Your task to perform on an android device: open app "Life360: Find Family & Friends" (install if not already installed) Image 0: 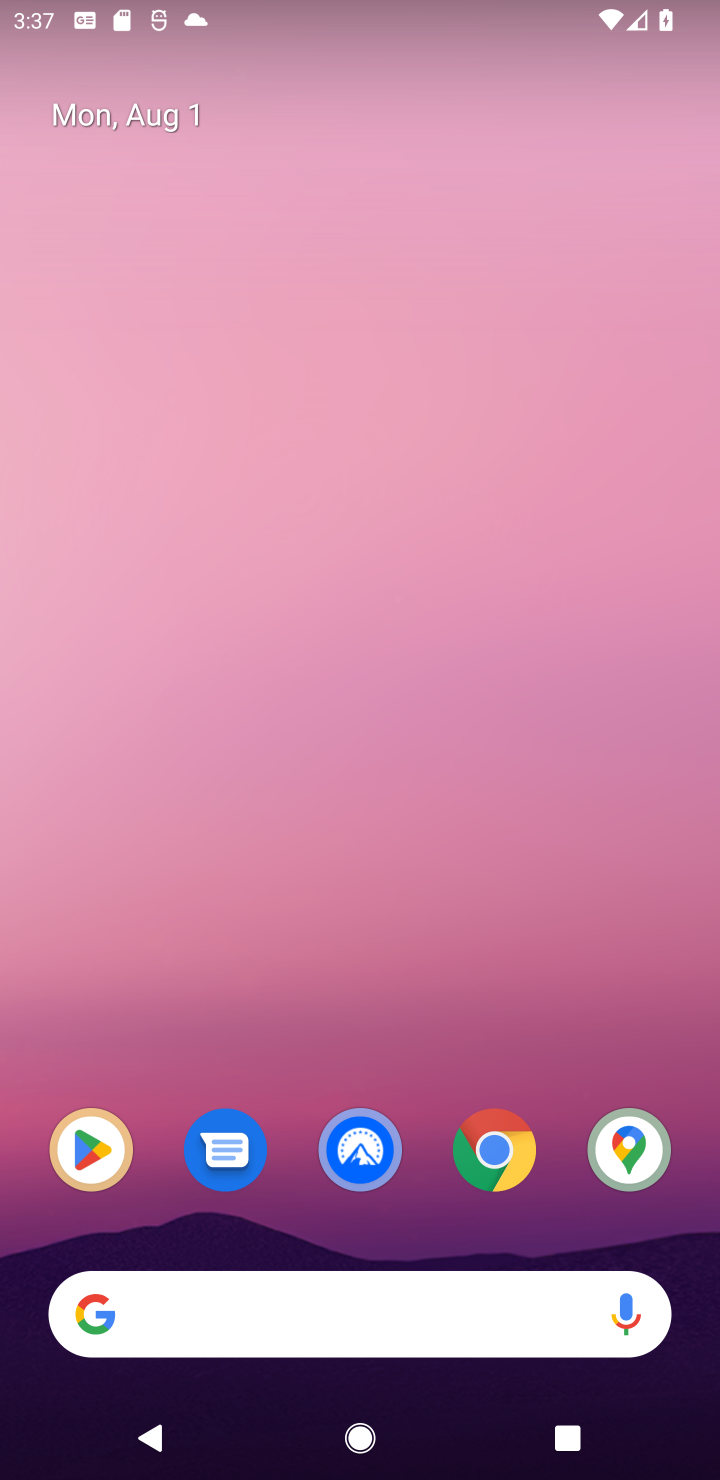
Step 0: click (97, 1130)
Your task to perform on an android device: open app "Life360: Find Family & Friends" (install if not already installed) Image 1: 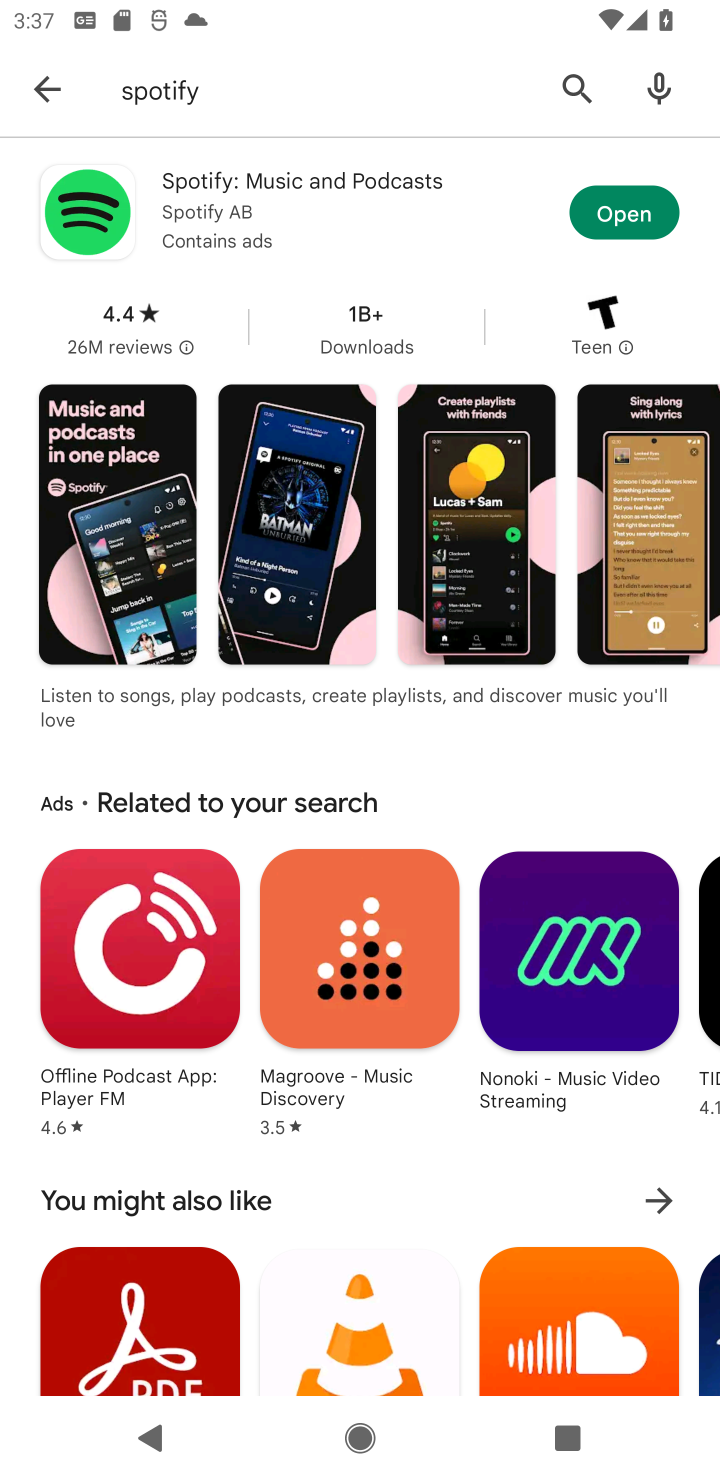
Step 1: click (565, 100)
Your task to perform on an android device: open app "Life360: Find Family & Friends" (install if not already installed) Image 2: 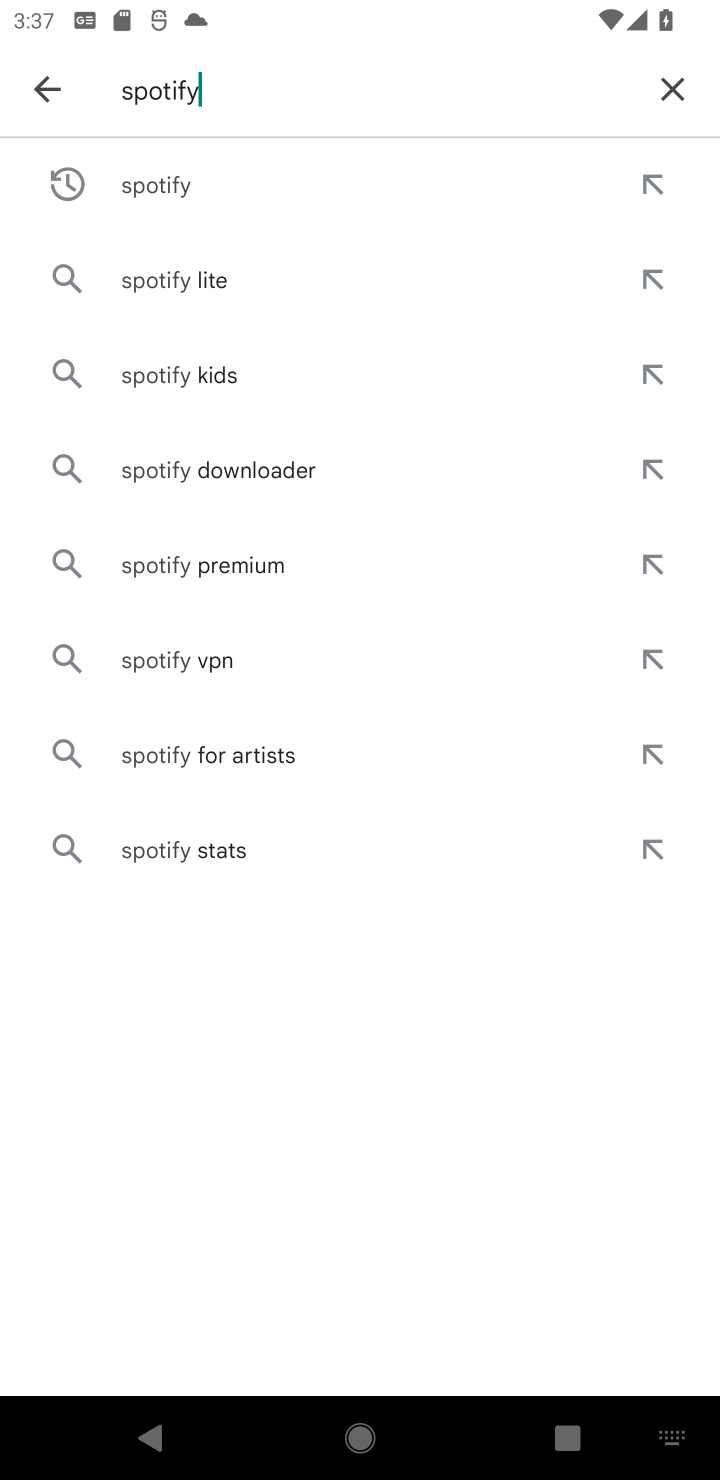
Step 2: click (671, 90)
Your task to perform on an android device: open app "Life360: Find Family & Friends" (install if not already installed) Image 3: 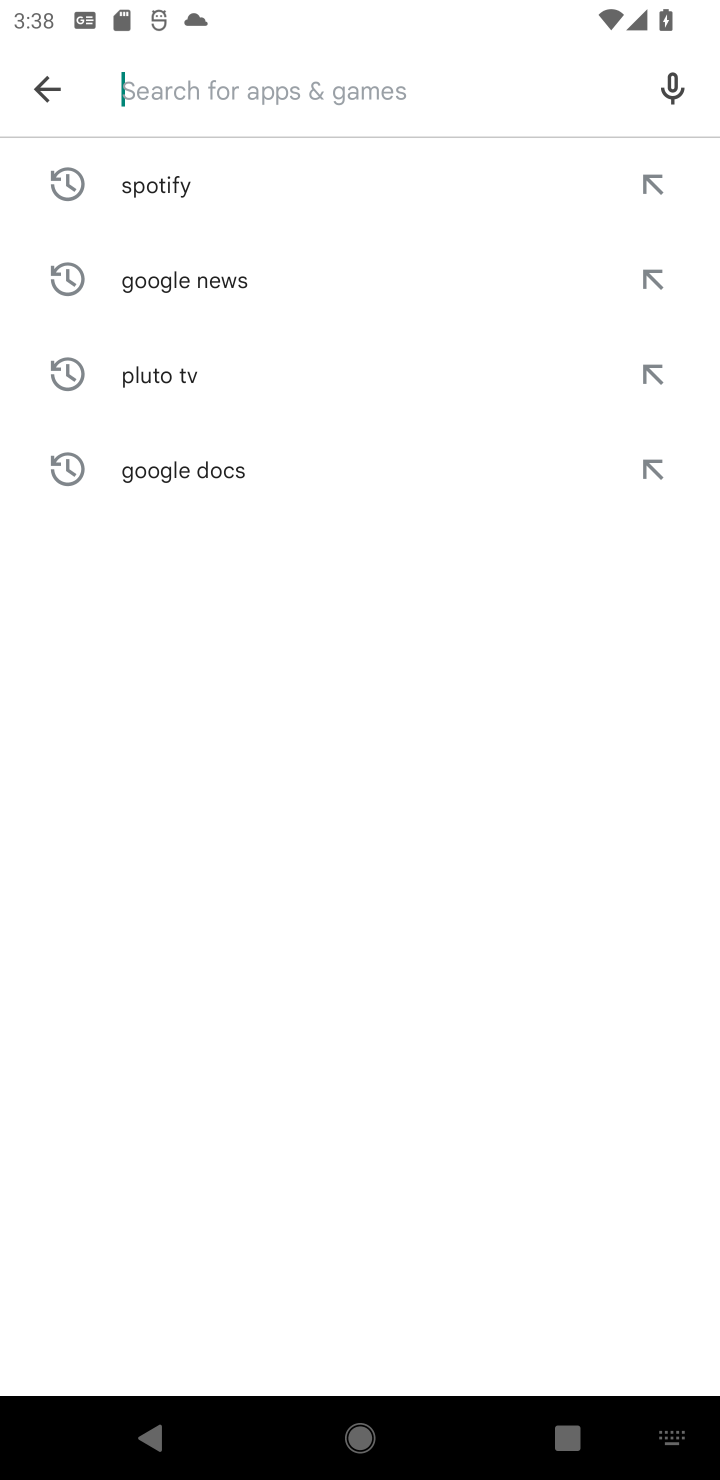
Step 3: type "life360"
Your task to perform on an android device: open app "Life360: Find Family & Friends" (install if not already installed) Image 4: 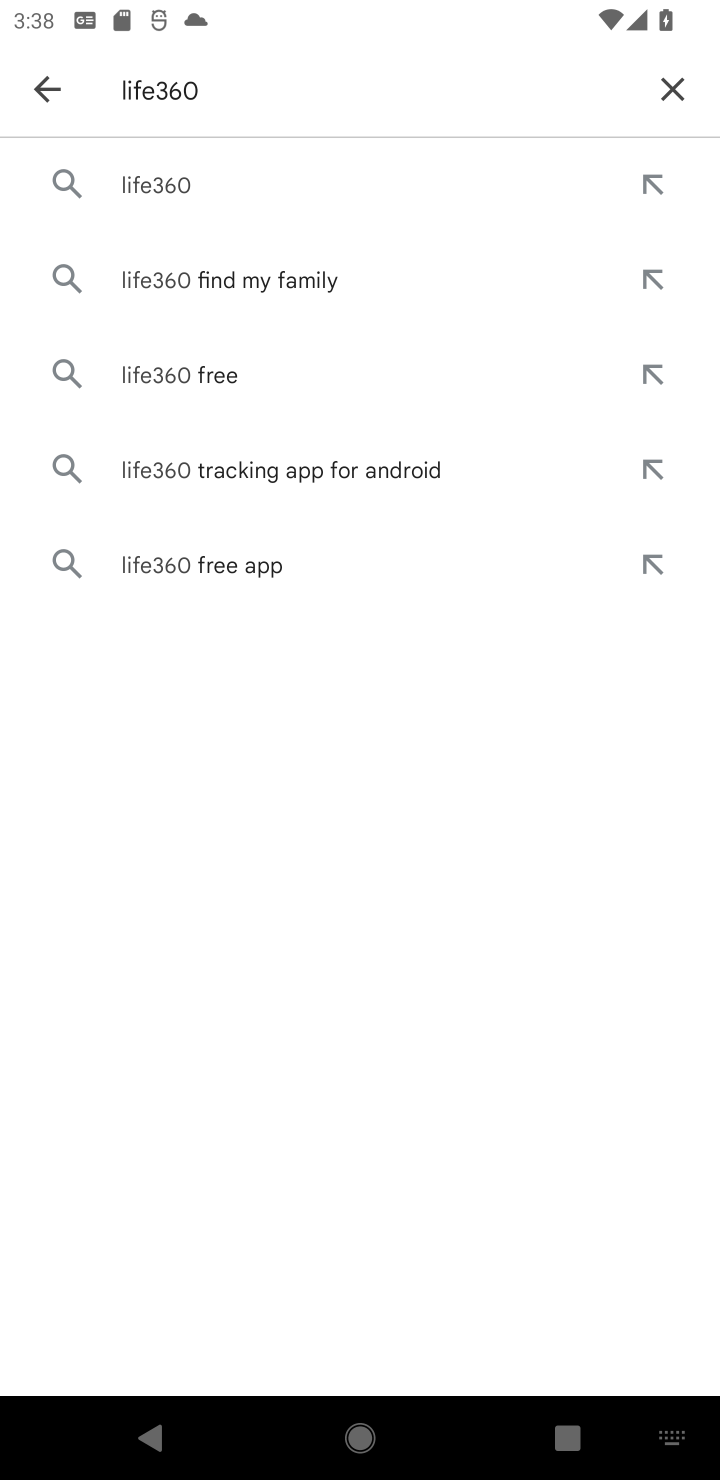
Step 4: click (259, 300)
Your task to perform on an android device: open app "Life360: Find Family & Friends" (install if not already installed) Image 5: 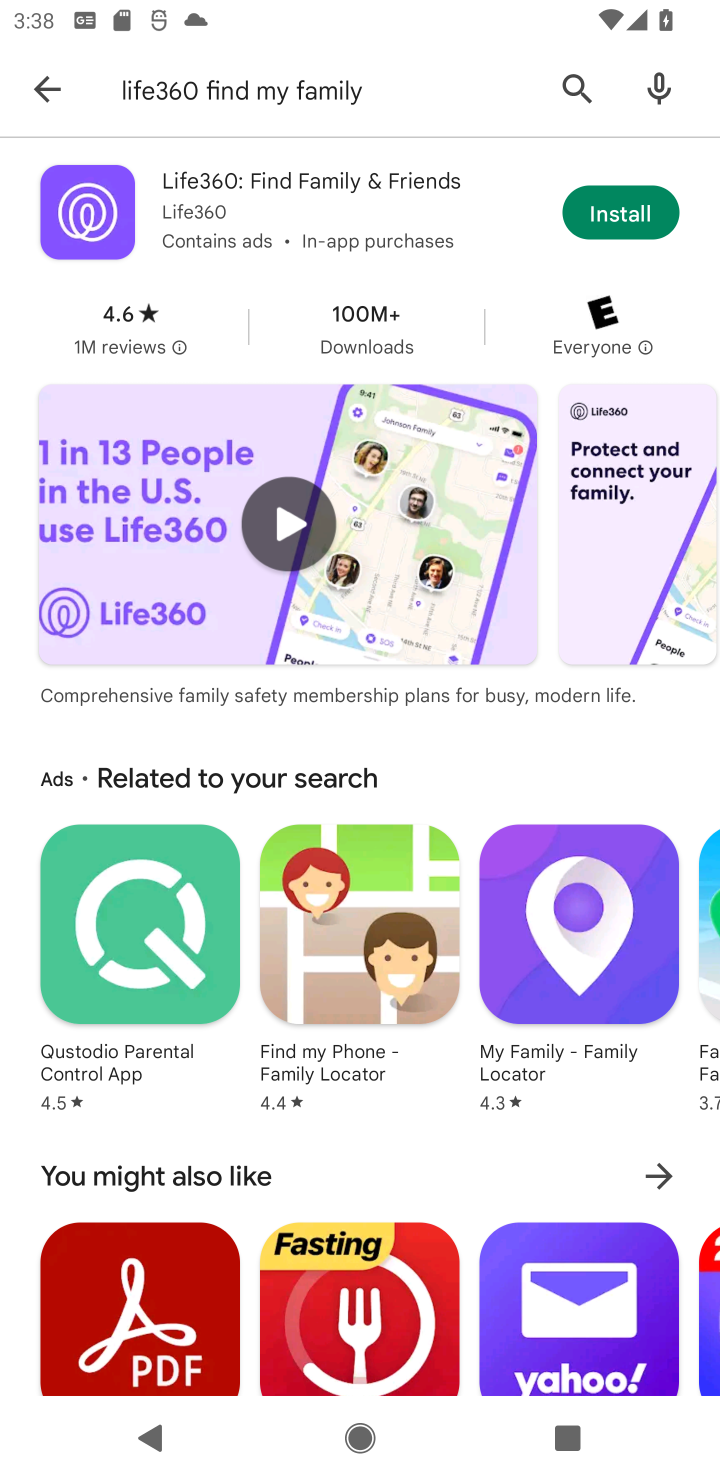
Step 5: click (631, 207)
Your task to perform on an android device: open app "Life360: Find Family & Friends" (install if not already installed) Image 6: 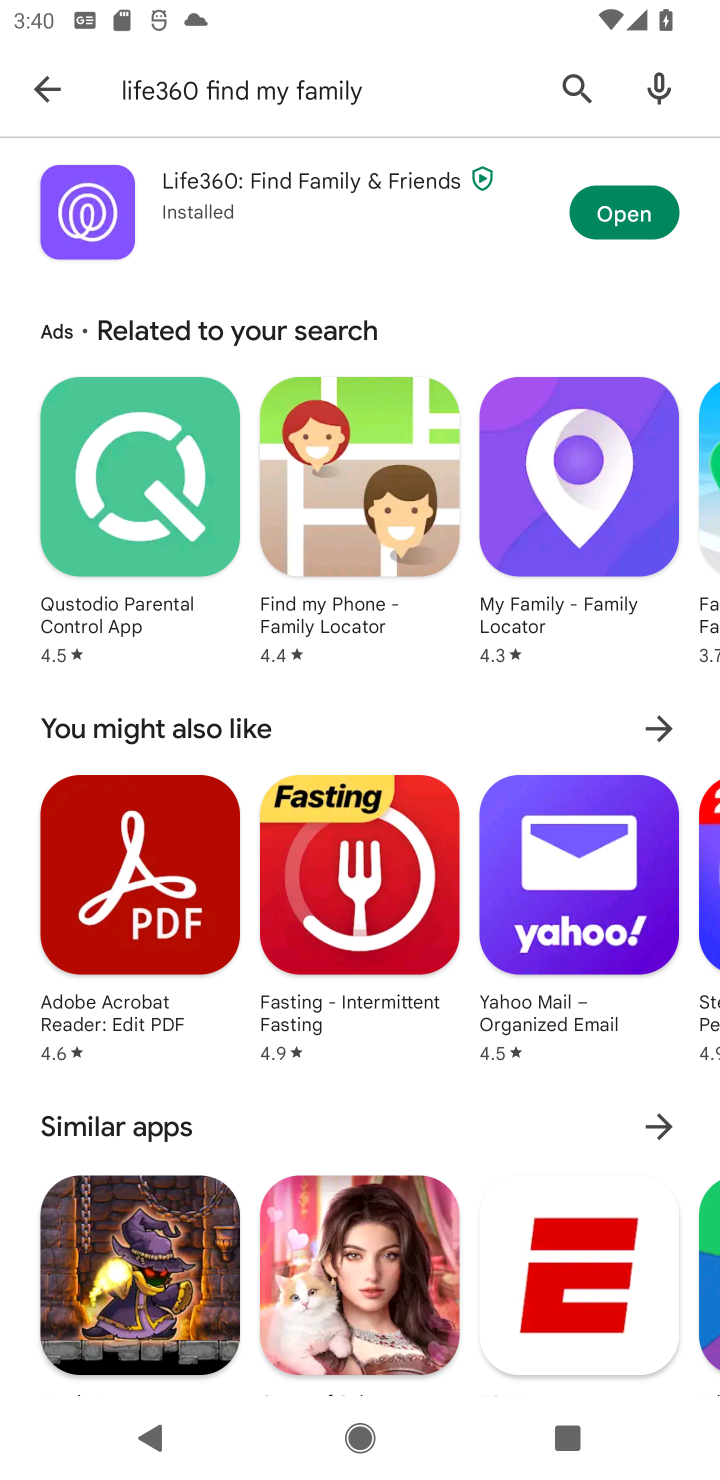
Step 6: task complete